Your task to perform on an android device: change text size in settings app Image 0: 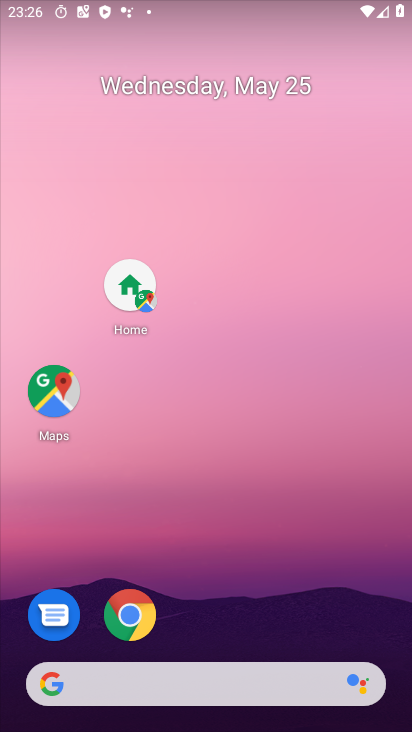
Step 0: press home button
Your task to perform on an android device: change text size in settings app Image 1: 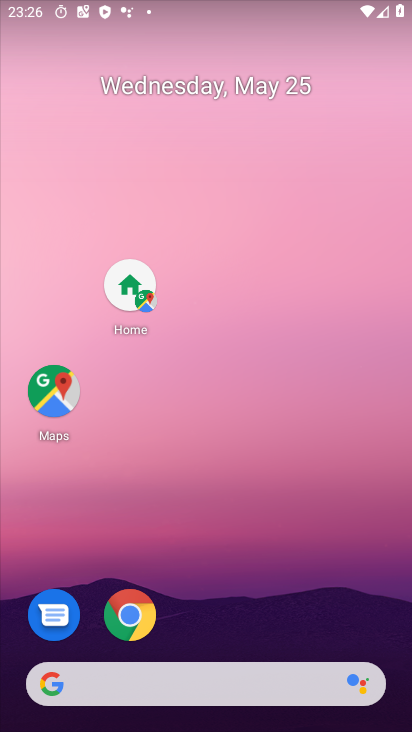
Step 1: drag from (231, 628) to (235, 117)
Your task to perform on an android device: change text size in settings app Image 2: 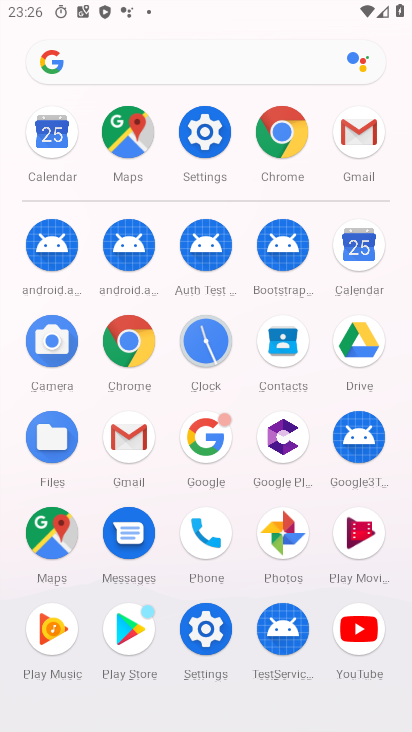
Step 2: click (208, 132)
Your task to perform on an android device: change text size in settings app Image 3: 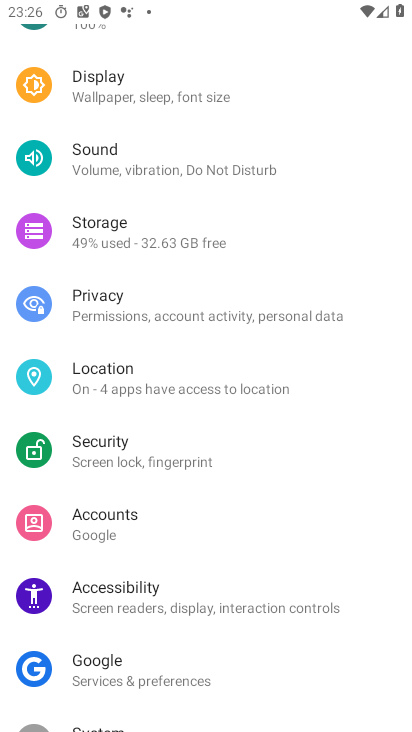
Step 3: drag from (289, 443) to (275, 17)
Your task to perform on an android device: change text size in settings app Image 4: 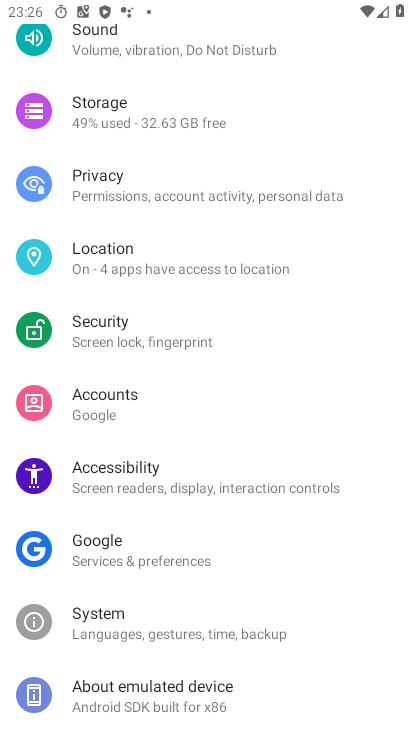
Step 4: drag from (313, 120) to (316, 585)
Your task to perform on an android device: change text size in settings app Image 5: 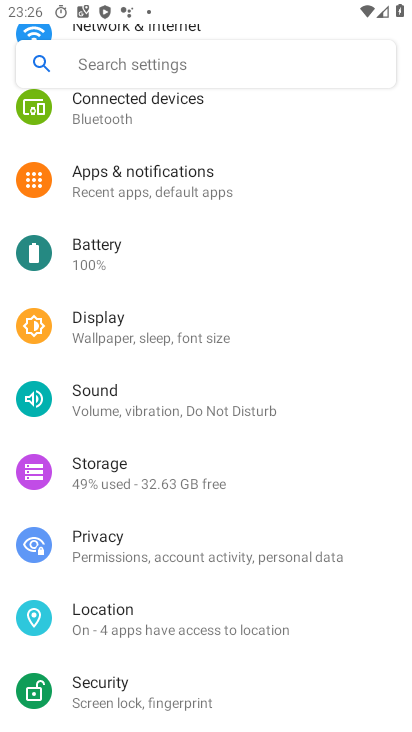
Step 5: click (108, 342)
Your task to perform on an android device: change text size in settings app Image 6: 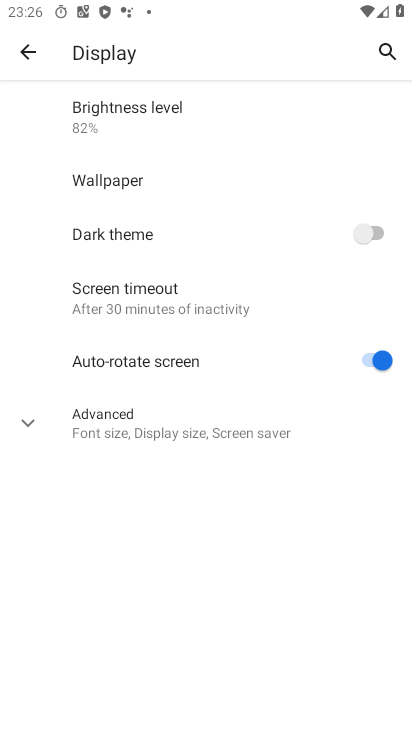
Step 6: click (109, 424)
Your task to perform on an android device: change text size in settings app Image 7: 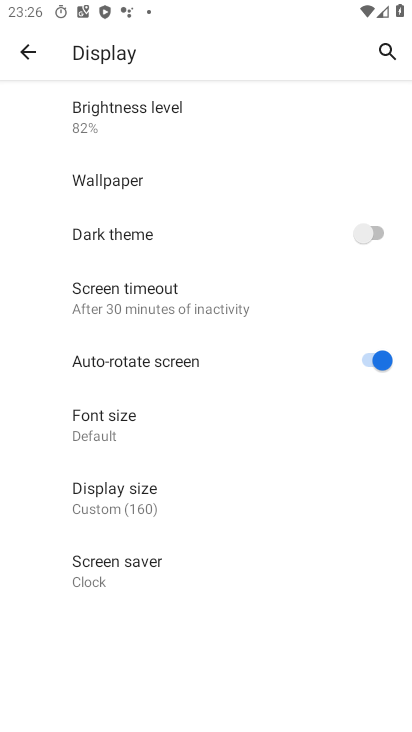
Step 7: click (102, 422)
Your task to perform on an android device: change text size in settings app Image 8: 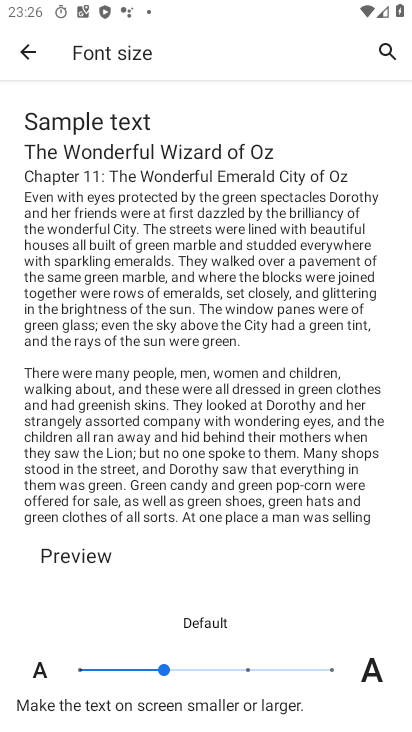
Step 8: click (243, 669)
Your task to perform on an android device: change text size in settings app Image 9: 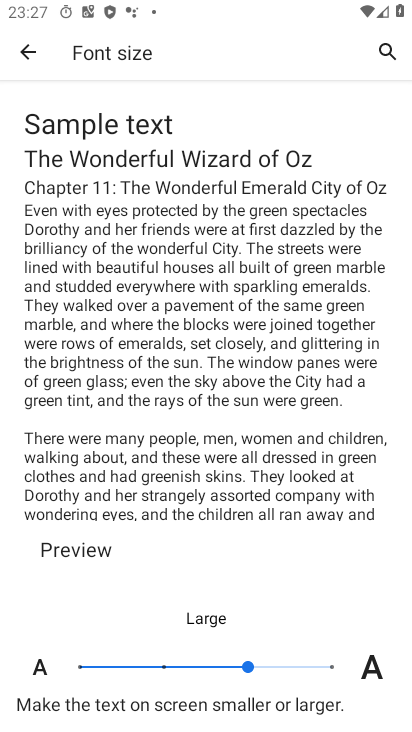
Step 9: task complete